Your task to perform on an android device: toggle javascript in the chrome app Image 0: 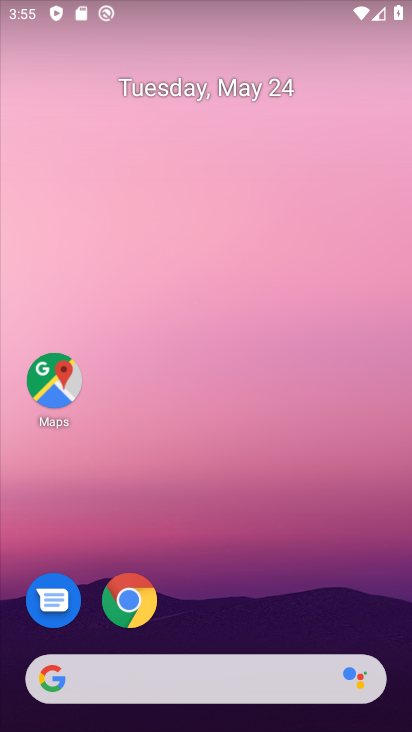
Step 0: drag from (242, 655) to (300, 0)
Your task to perform on an android device: toggle javascript in the chrome app Image 1: 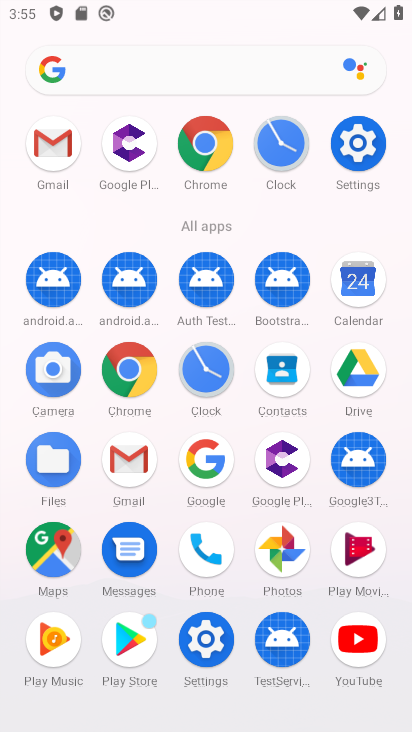
Step 1: click (141, 378)
Your task to perform on an android device: toggle javascript in the chrome app Image 2: 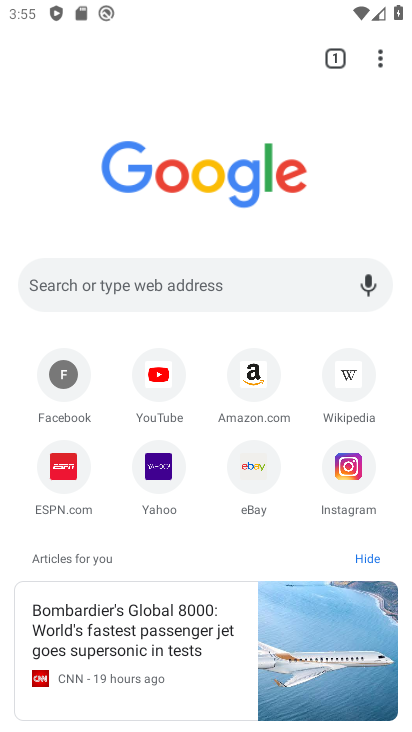
Step 2: click (382, 53)
Your task to perform on an android device: toggle javascript in the chrome app Image 3: 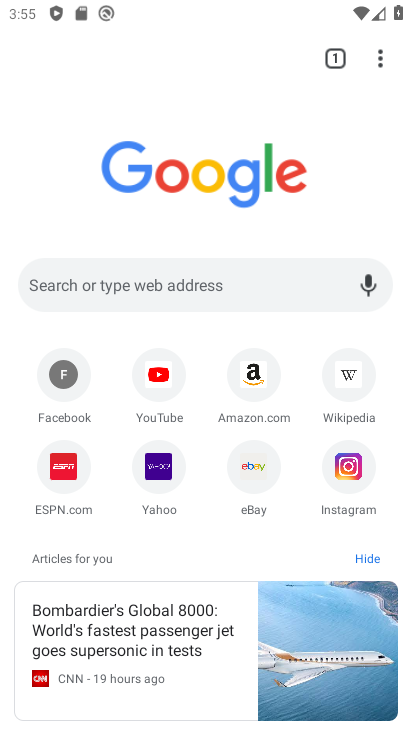
Step 3: click (380, 62)
Your task to perform on an android device: toggle javascript in the chrome app Image 4: 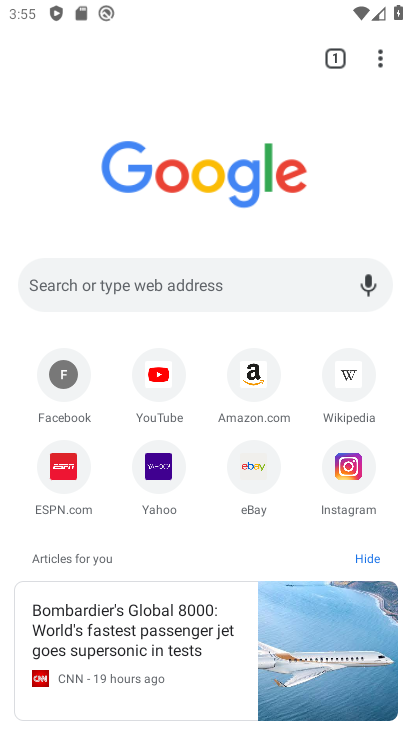
Step 4: drag from (384, 60) to (212, 497)
Your task to perform on an android device: toggle javascript in the chrome app Image 5: 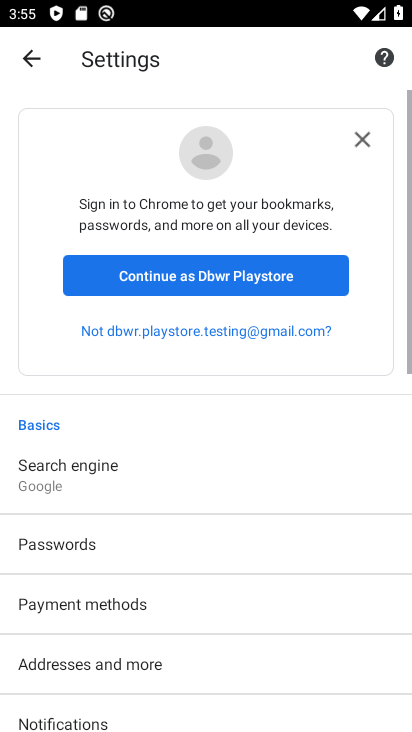
Step 5: drag from (182, 676) to (205, 44)
Your task to perform on an android device: toggle javascript in the chrome app Image 6: 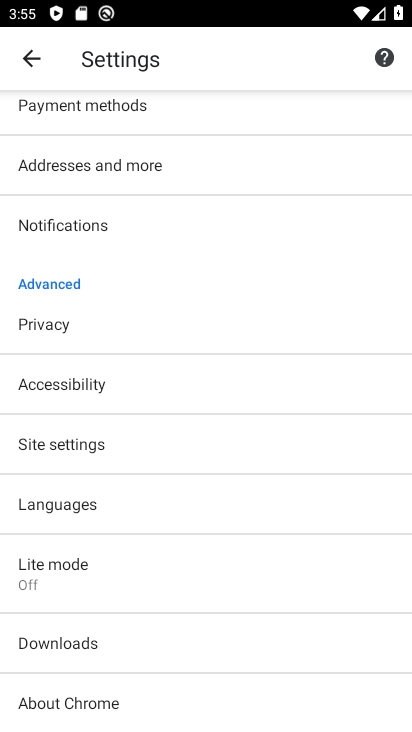
Step 6: click (54, 450)
Your task to perform on an android device: toggle javascript in the chrome app Image 7: 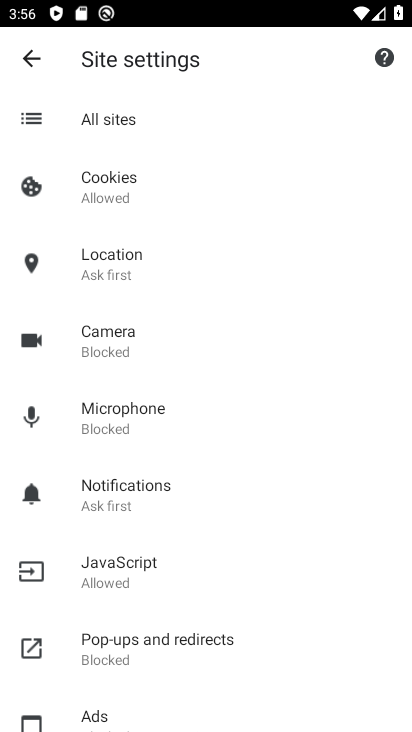
Step 7: click (149, 571)
Your task to perform on an android device: toggle javascript in the chrome app Image 8: 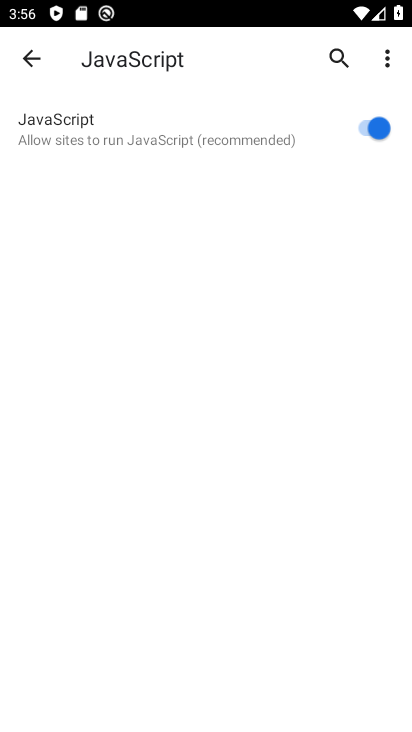
Step 8: click (361, 130)
Your task to perform on an android device: toggle javascript in the chrome app Image 9: 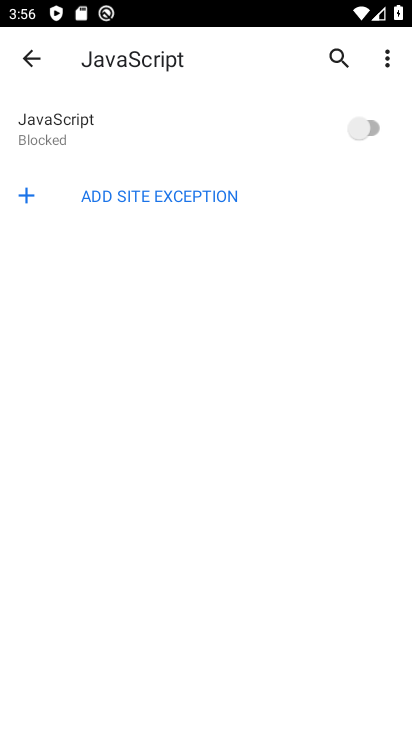
Step 9: task complete